Your task to perform on an android device: turn on the 12-hour format for clock Image 0: 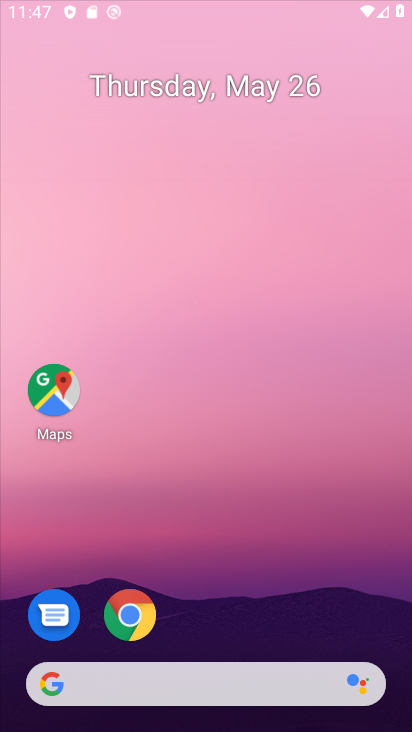
Step 0: click (290, 163)
Your task to perform on an android device: turn on the 12-hour format for clock Image 1: 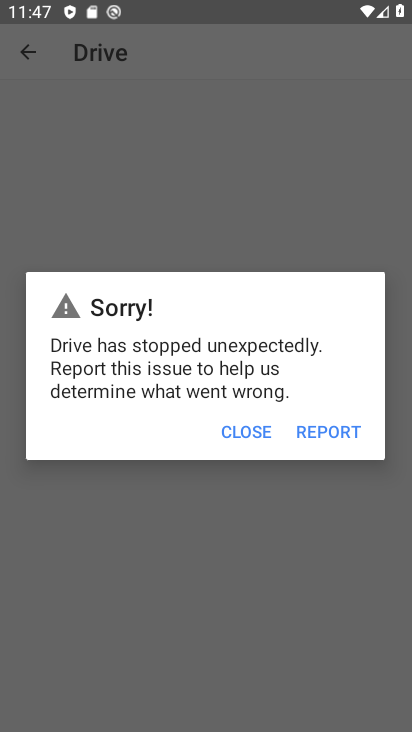
Step 1: press home button
Your task to perform on an android device: turn on the 12-hour format for clock Image 2: 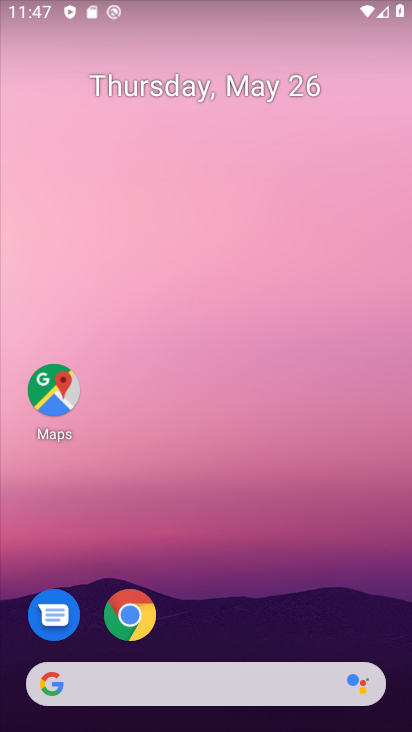
Step 2: drag from (237, 642) to (337, 91)
Your task to perform on an android device: turn on the 12-hour format for clock Image 3: 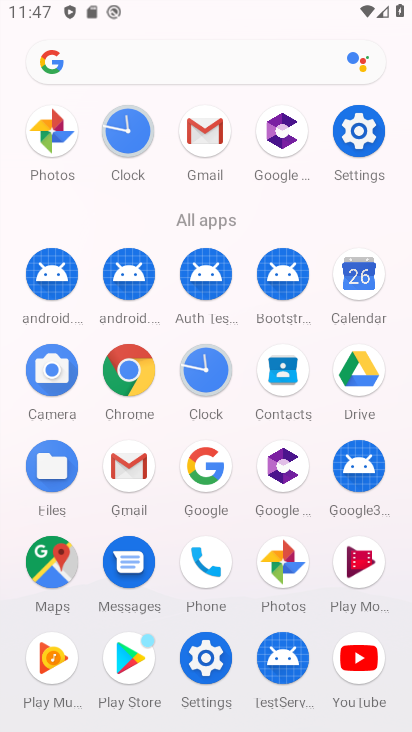
Step 3: click (211, 382)
Your task to perform on an android device: turn on the 12-hour format for clock Image 4: 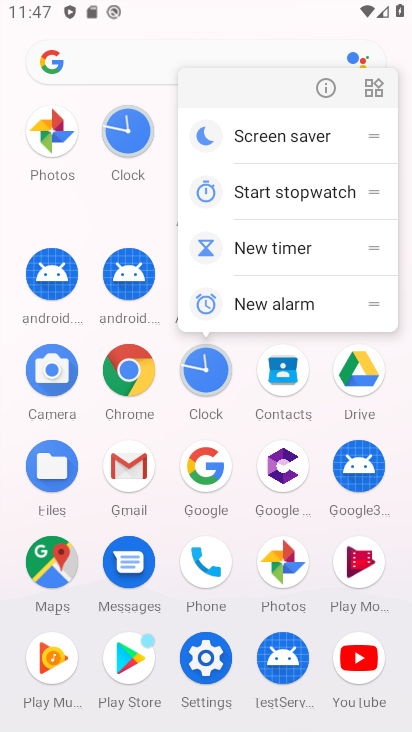
Step 4: click (210, 375)
Your task to perform on an android device: turn on the 12-hour format for clock Image 5: 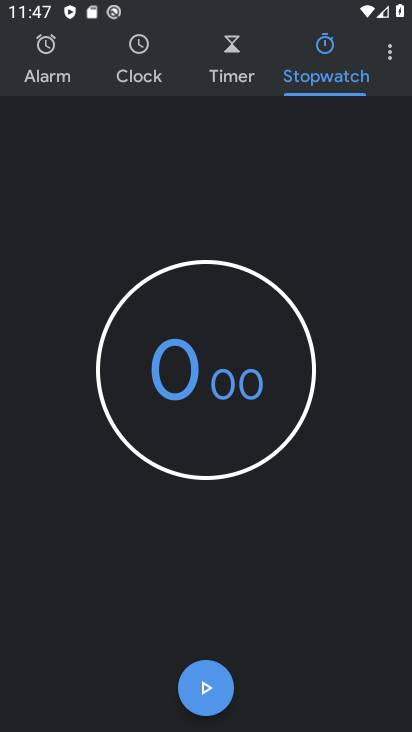
Step 5: click (391, 62)
Your task to perform on an android device: turn on the 12-hour format for clock Image 6: 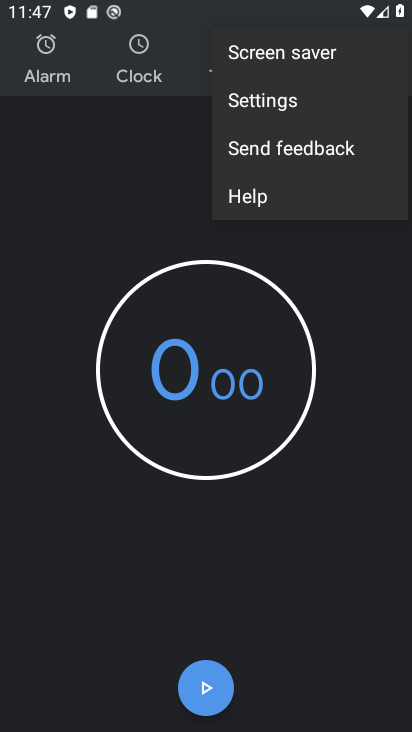
Step 6: click (303, 93)
Your task to perform on an android device: turn on the 12-hour format for clock Image 7: 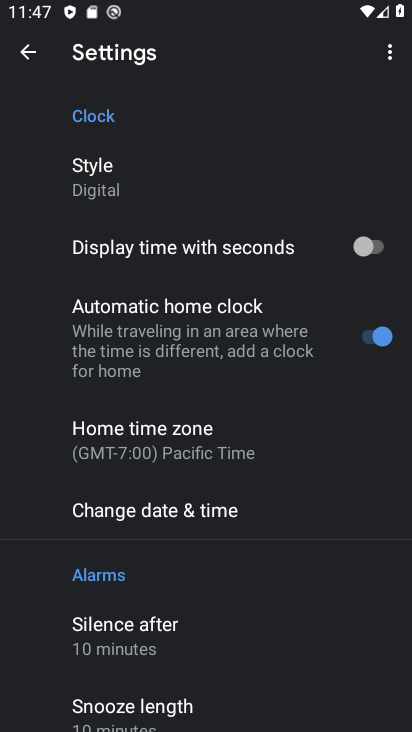
Step 7: click (173, 517)
Your task to perform on an android device: turn on the 12-hour format for clock Image 8: 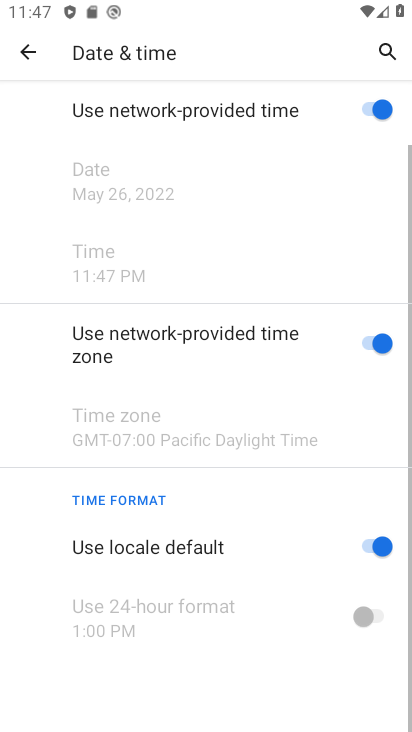
Step 8: task complete